Your task to perform on an android device: toggle notifications settings in the gmail app Image 0: 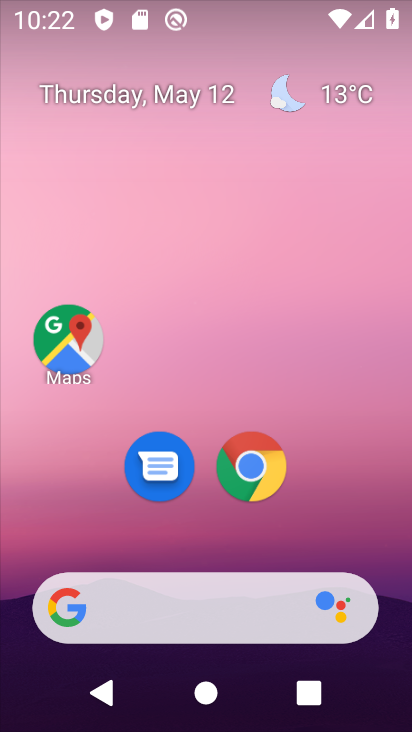
Step 0: drag from (175, 526) to (262, 41)
Your task to perform on an android device: toggle notifications settings in the gmail app Image 1: 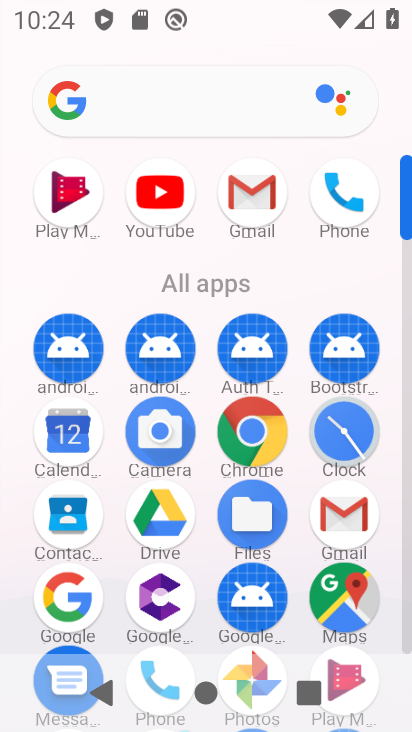
Step 1: click (332, 514)
Your task to perform on an android device: toggle notifications settings in the gmail app Image 2: 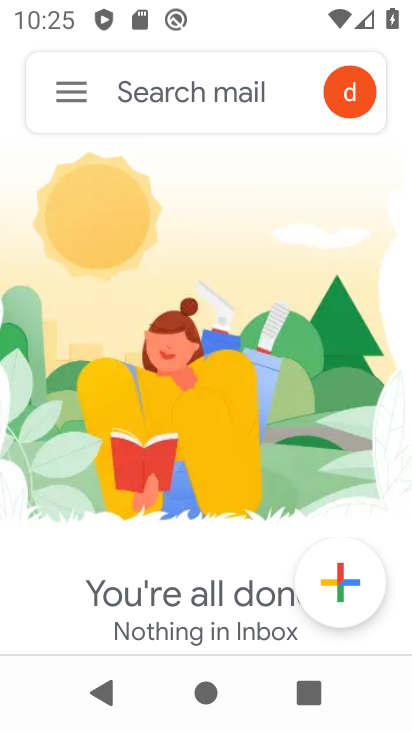
Step 2: press back button
Your task to perform on an android device: toggle notifications settings in the gmail app Image 3: 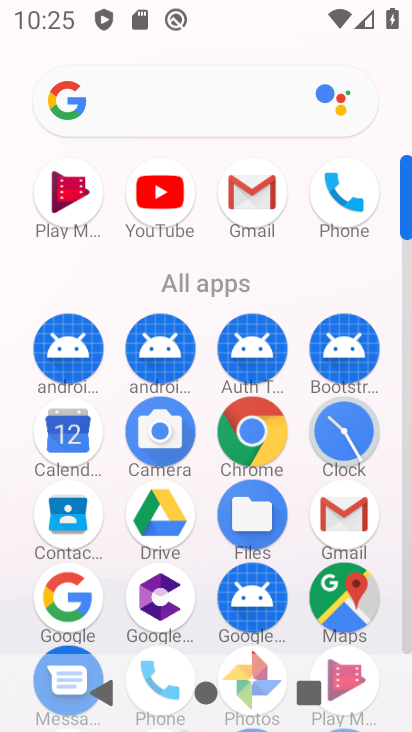
Step 3: click (256, 193)
Your task to perform on an android device: toggle notifications settings in the gmail app Image 4: 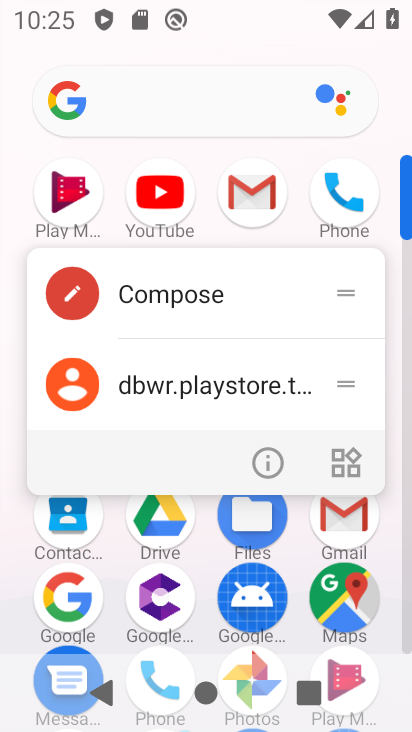
Step 4: click (265, 455)
Your task to perform on an android device: toggle notifications settings in the gmail app Image 5: 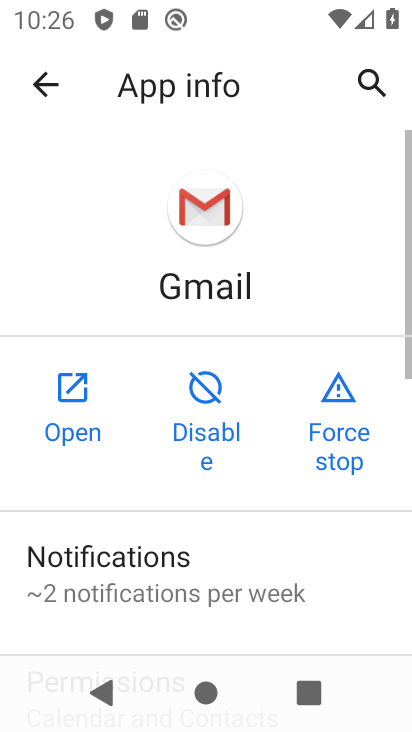
Step 5: click (116, 569)
Your task to perform on an android device: toggle notifications settings in the gmail app Image 6: 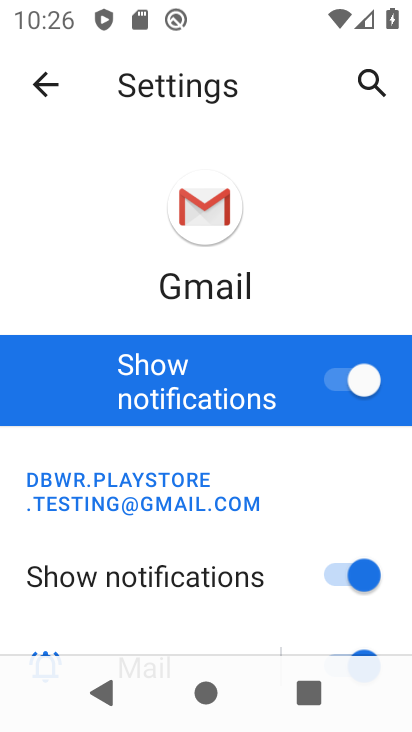
Step 6: click (358, 381)
Your task to perform on an android device: toggle notifications settings in the gmail app Image 7: 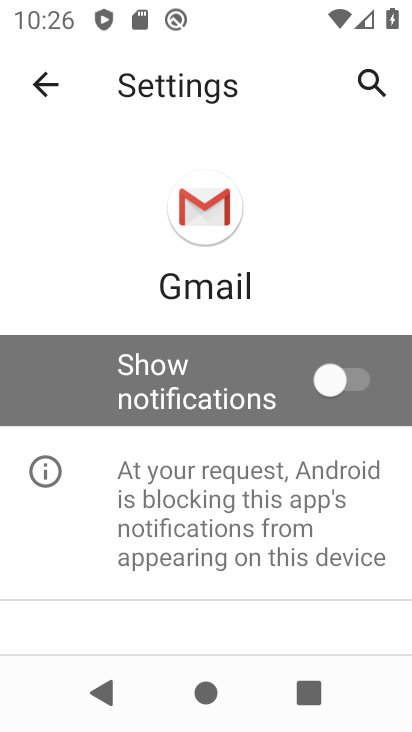
Step 7: task complete